Your task to perform on an android device: open chrome and create a bookmark for the current page Image 0: 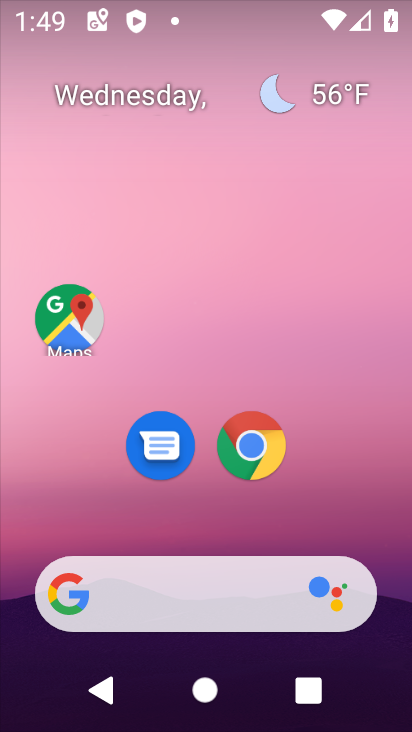
Step 0: click (266, 462)
Your task to perform on an android device: open chrome and create a bookmark for the current page Image 1: 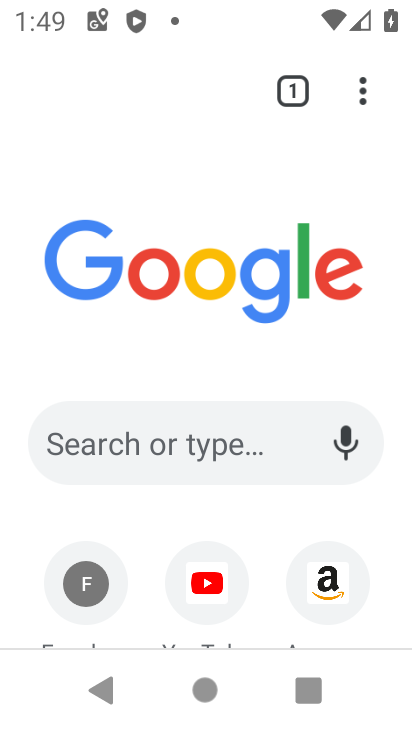
Step 1: click (368, 83)
Your task to perform on an android device: open chrome and create a bookmark for the current page Image 2: 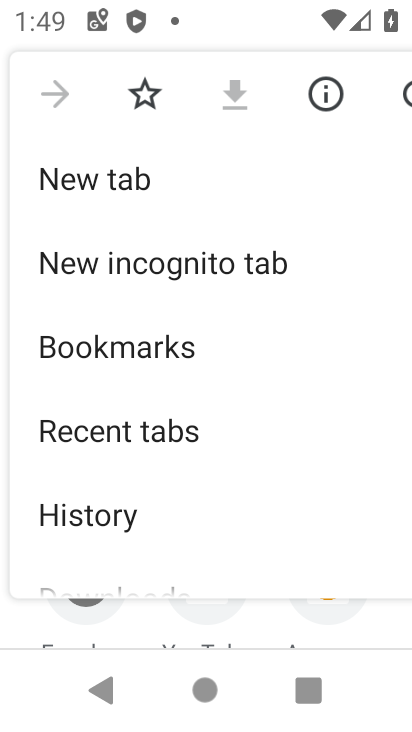
Step 2: click (129, 98)
Your task to perform on an android device: open chrome and create a bookmark for the current page Image 3: 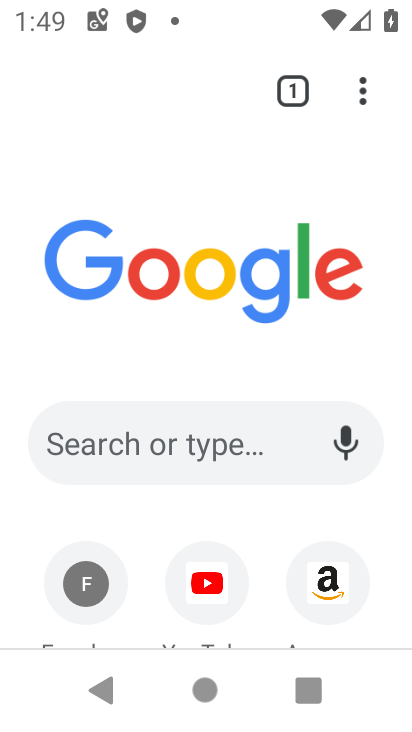
Step 3: task complete